Your task to perform on an android device: check the backup settings in the google photos Image 0: 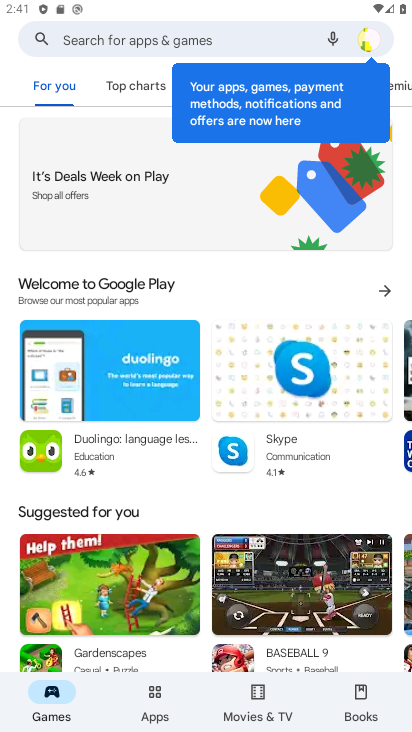
Step 0: press home button
Your task to perform on an android device: check the backup settings in the google photos Image 1: 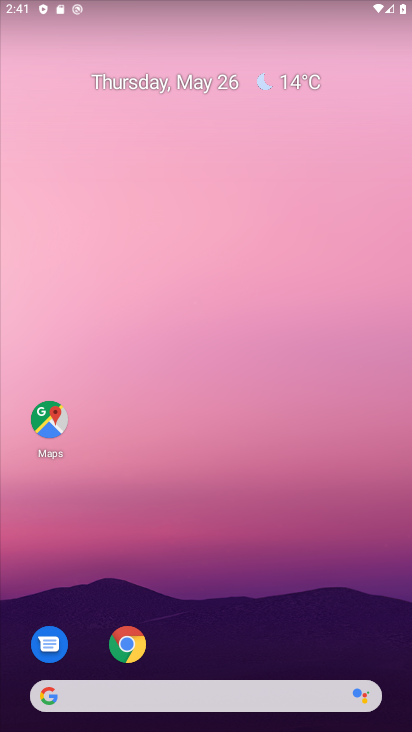
Step 1: drag from (326, 575) to (334, 182)
Your task to perform on an android device: check the backup settings in the google photos Image 2: 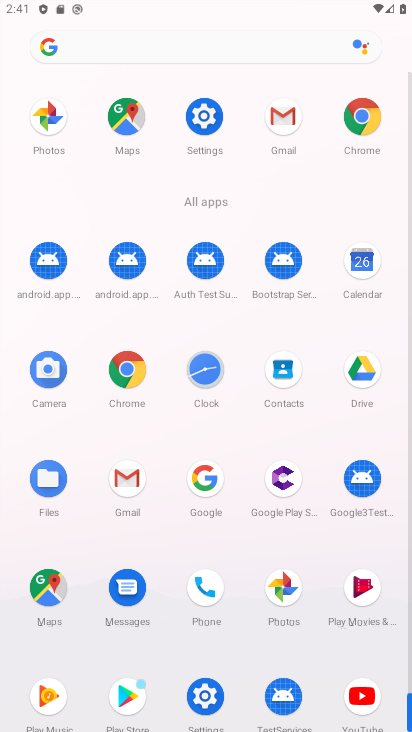
Step 2: click (281, 583)
Your task to perform on an android device: check the backup settings in the google photos Image 3: 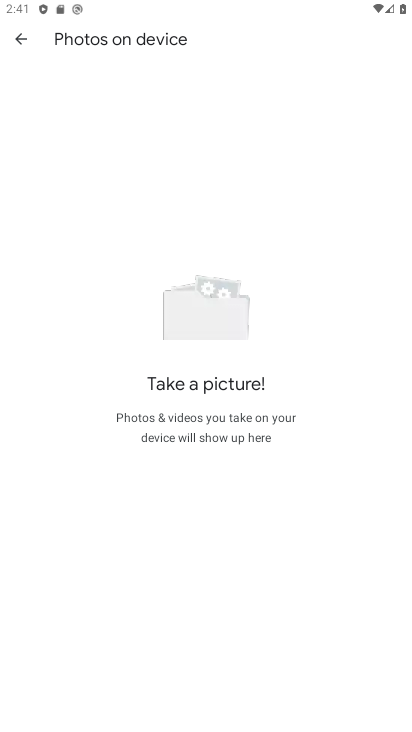
Step 3: click (13, 25)
Your task to perform on an android device: check the backup settings in the google photos Image 4: 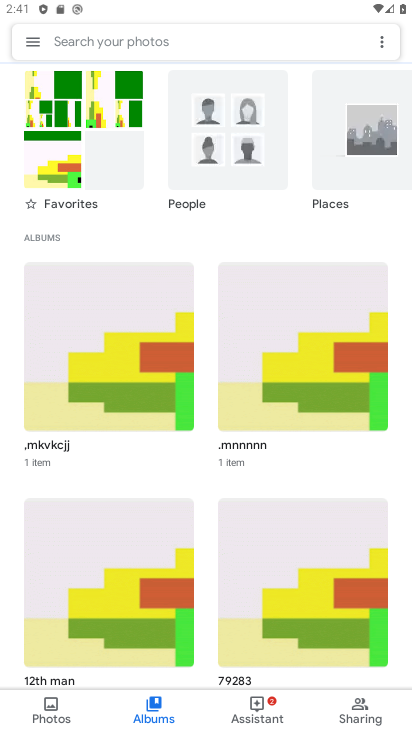
Step 4: click (22, 39)
Your task to perform on an android device: check the backup settings in the google photos Image 5: 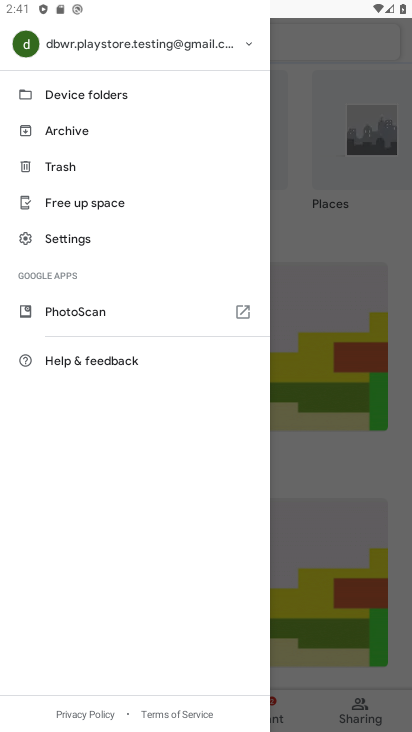
Step 5: click (84, 233)
Your task to perform on an android device: check the backup settings in the google photos Image 6: 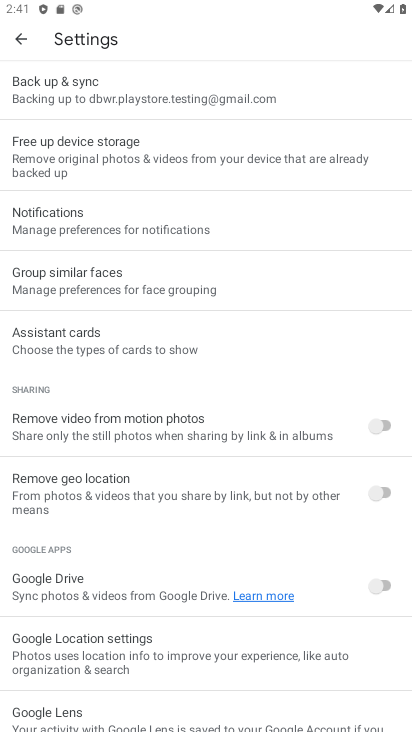
Step 6: click (142, 111)
Your task to perform on an android device: check the backup settings in the google photos Image 7: 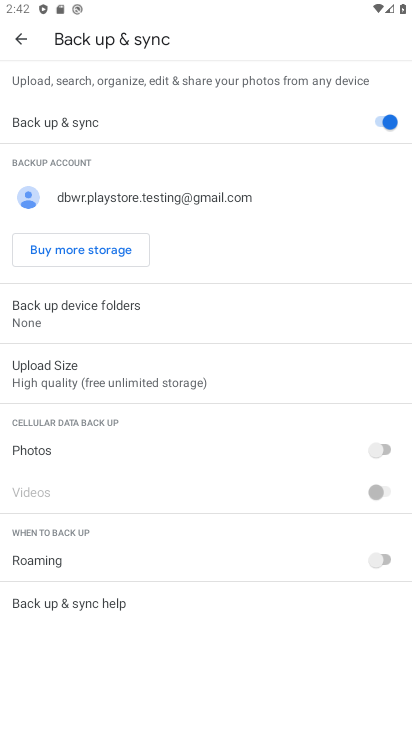
Step 7: click (128, 123)
Your task to perform on an android device: check the backup settings in the google photos Image 8: 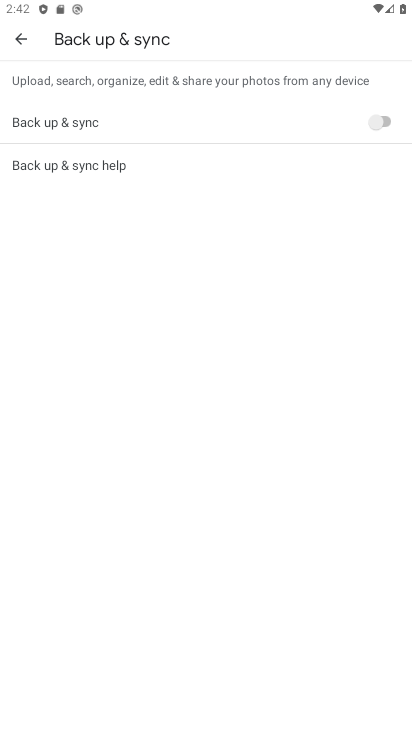
Step 8: task complete